Your task to perform on an android device: see sites visited before in the chrome app Image 0: 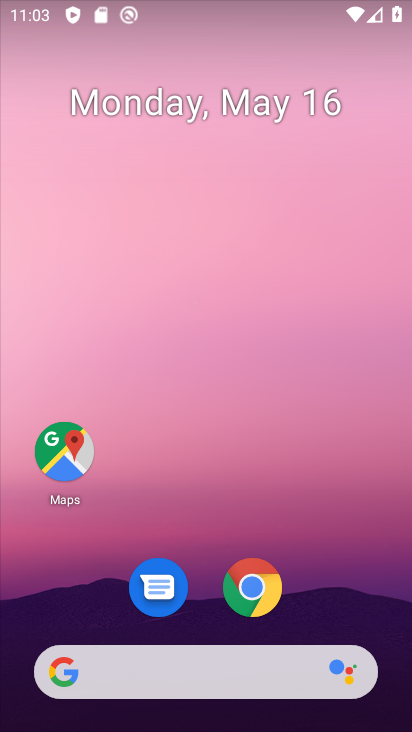
Step 0: drag from (379, 644) to (271, 38)
Your task to perform on an android device: see sites visited before in the chrome app Image 1: 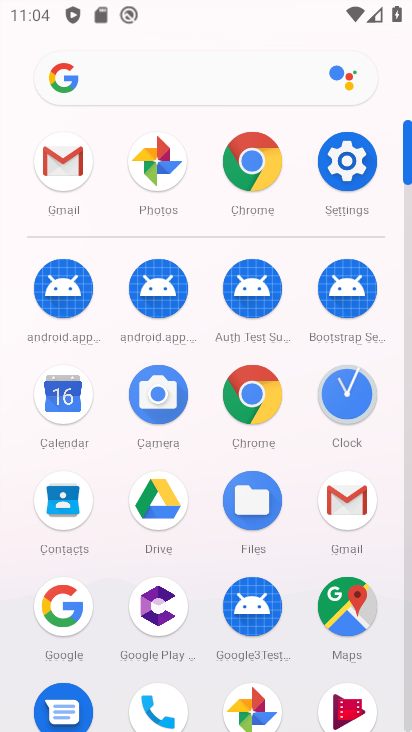
Step 1: click (238, 408)
Your task to perform on an android device: see sites visited before in the chrome app Image 2: 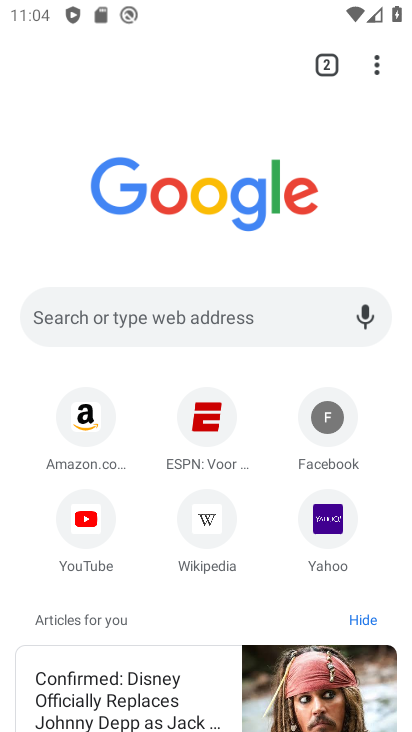
Step 2: click (367, 64)
Your task to perform on an android device: see sites visited before in the chrome app Image 3: 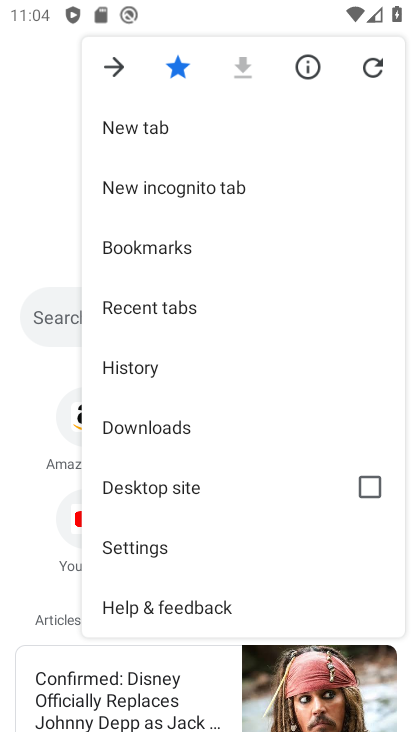
Step 3: click (156, 378)
Your task to perform on an android device: see sites visited before in the chrome app Image 4: 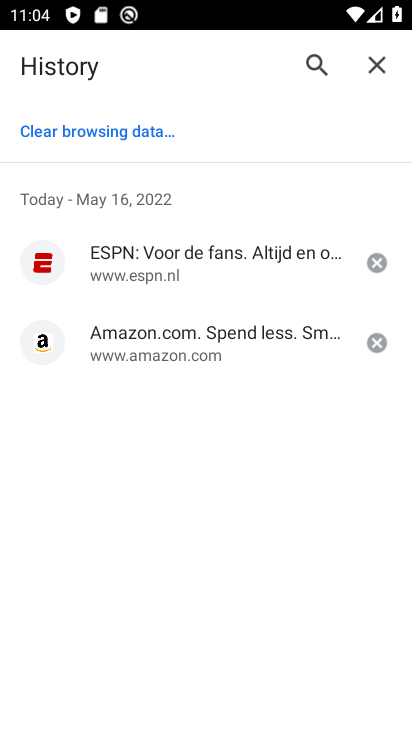
Step 4: click (175, 256)
Your task to perform on an android device: see sites visited before in the chrome app Image 5: 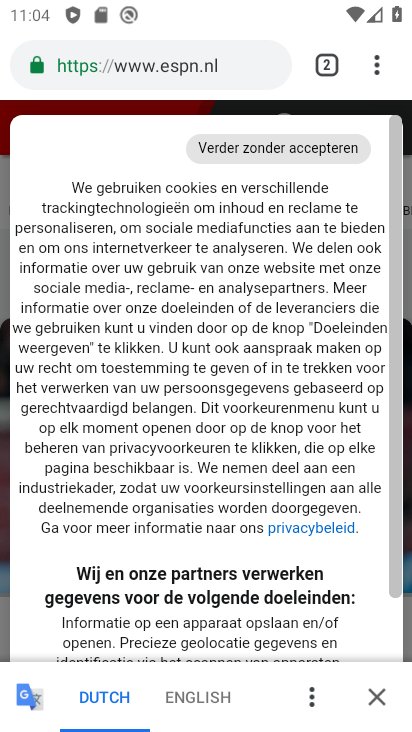
Step 5: task complete